Your task to perform on an android device: move a message to another label in the gmail app Image 0: 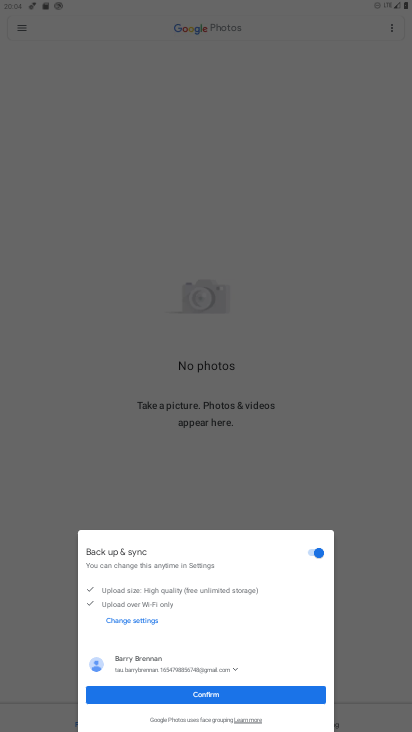
Step 0: press home button
Your task to perform on an android device: move a message to another label in the gmail app Image 1: 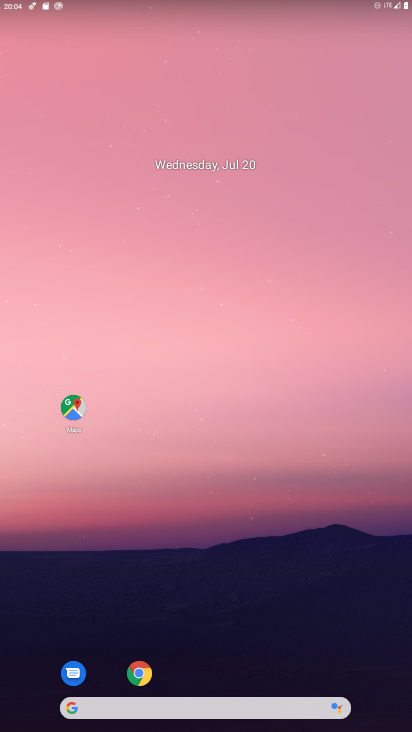
Step 1: drag from (251, 575) to (332, 6)
Your task to perform on an android device: move a message to another label in the gmail app Image 2: 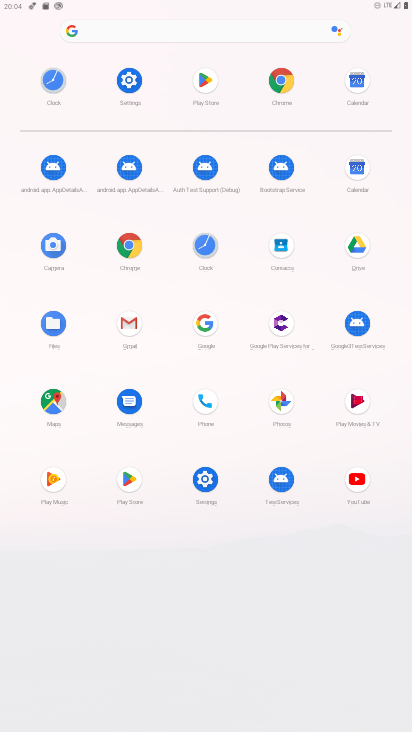
Step 2: click (128, 340)
Your task to perform on an android device: move a message to another label in the gmail app Image 3: 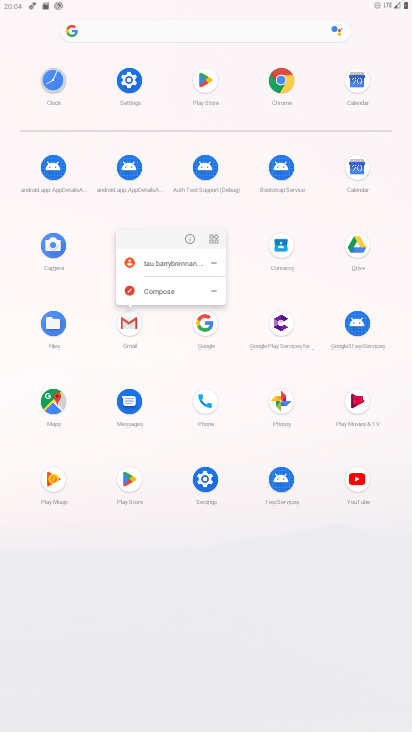
Step 3: click (123, 336)
Your task to perform on an android device: move a message to another label in the gmail app Image 4: 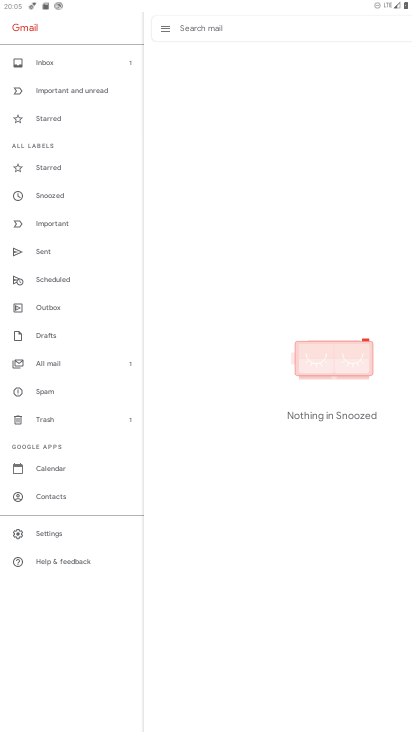
Step 4: click (56, 54)
Your task to perform on an android device: move a message to another label in the gmail app Image 5: 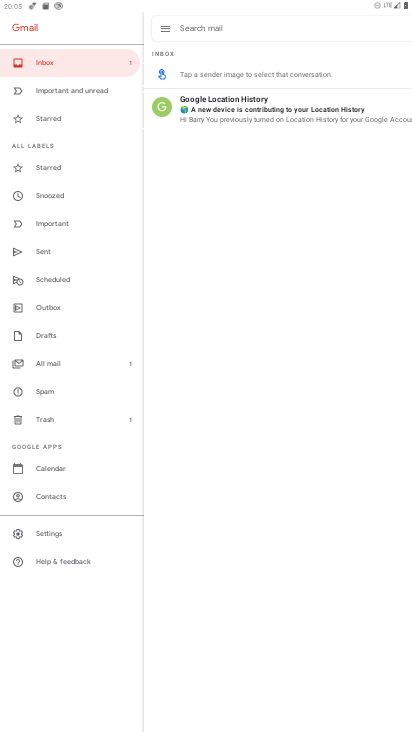
Step 5: click (270, 117)
Your task to perform on an android device: move a message to another label in the gmail app Image 6: 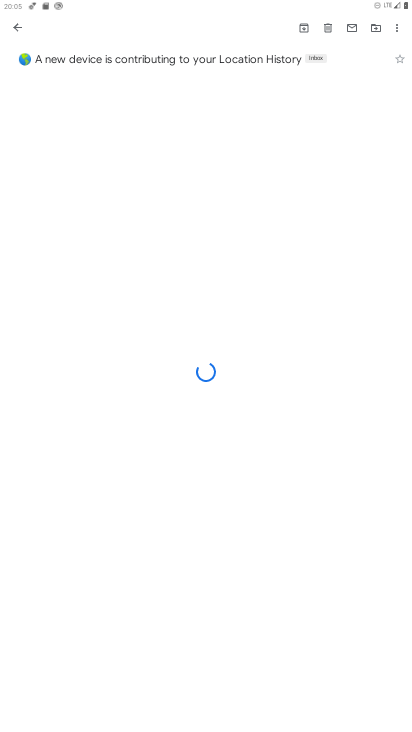
Step 6: click (397, 33)
Your task to perform on an android device: move a message to another label in the gmail app Image 7: 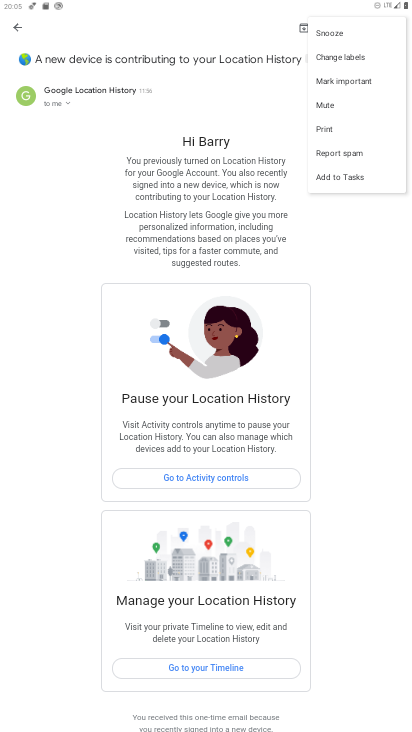
Step 7: click (364, 57)
Your task to perform on an android device: move a message to another label in the gmail app Image 8: 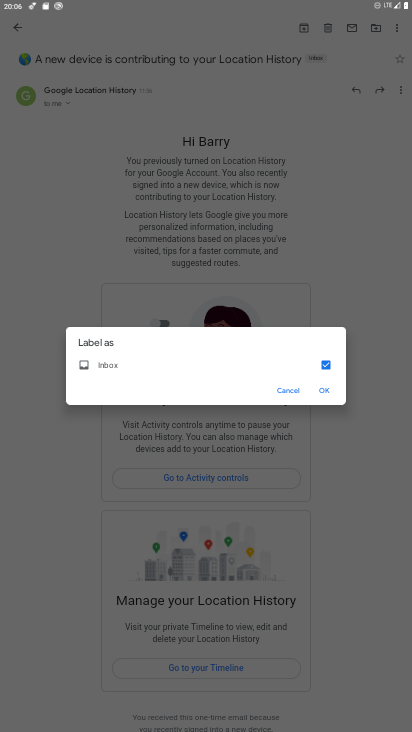
Step 8: task complete